Your task to perform on an android device: Open Maps and search for coffee Image 0: 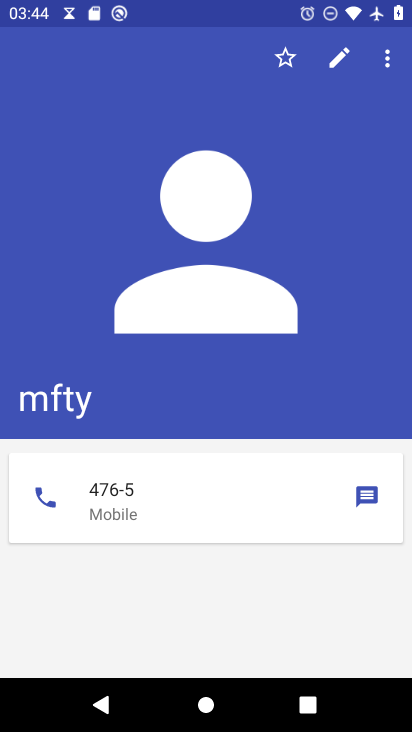
Step 0: press home button
Your task to perform on an android device: Open Maps and search for coffee Image 1: 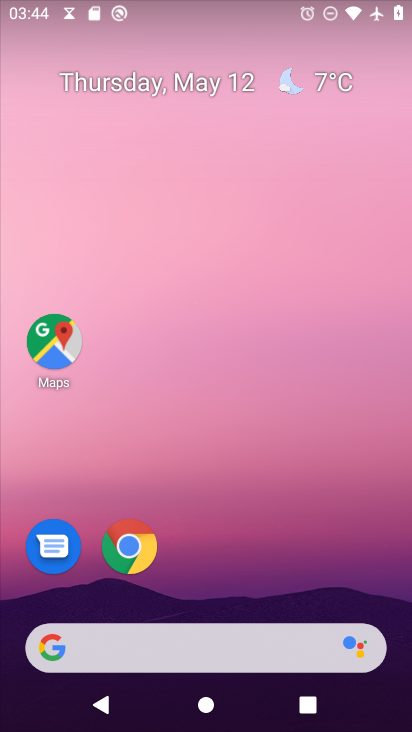
Step 1: drag from (168, 653) to (306, 194)
Your task to perform on an android device: Open Maps and search for coffee Image 2: 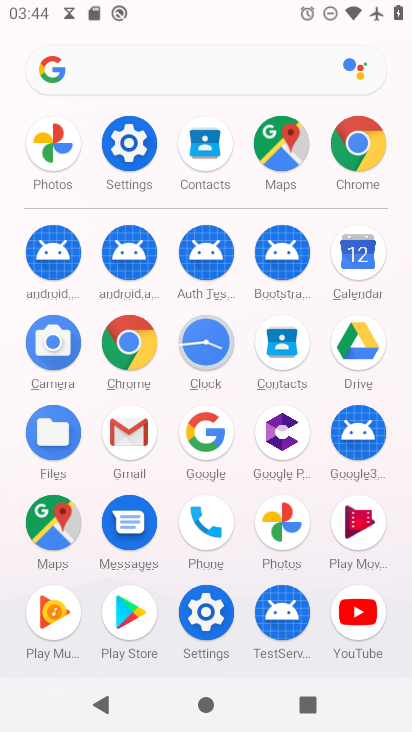
Step 2: click (59, 518)
Your task to perform on an android device: Open Maps and search for coffee Image 3: 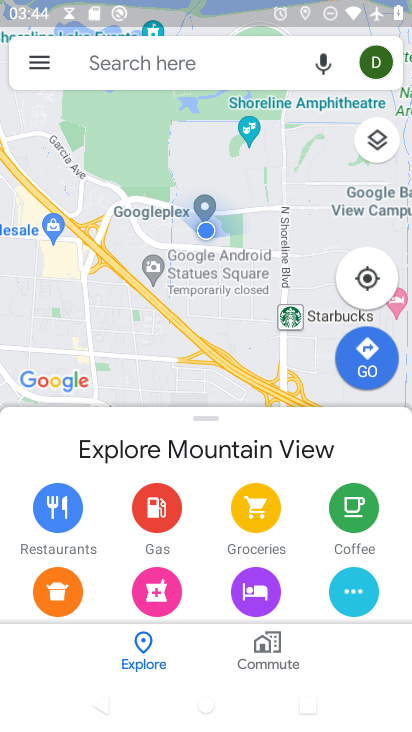
Step 3: click (208, 61)
Your task to perform on an android device: Open Maps and search for coffee Image 4: 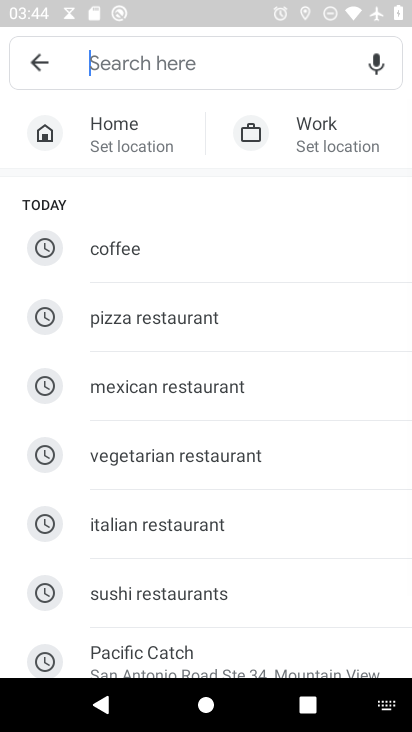
Step 4: click (141, 246)
Your task to perform on an android device: Open Maps and search for coffee Image 5: 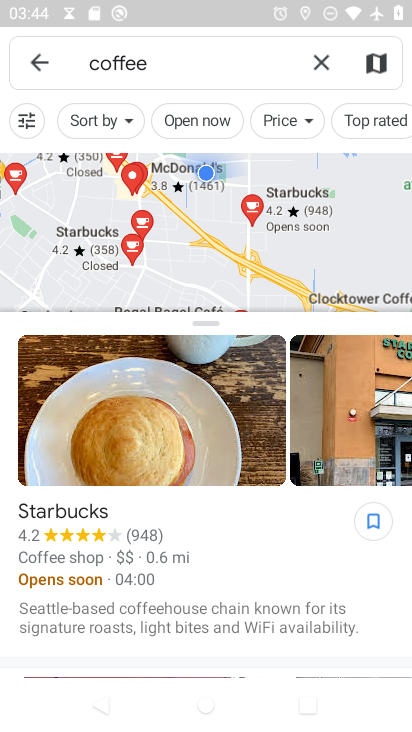
Step 5: task complete